Your task to perform on an android device: turn off sleep mode Image 0: 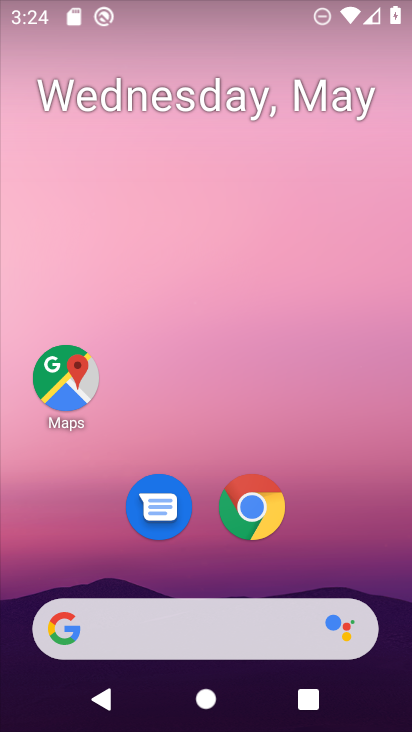
Step 0: drag from (187, 521) to (314, 61)
Your task to perform on an android device: turn off sleep mode Image 1: 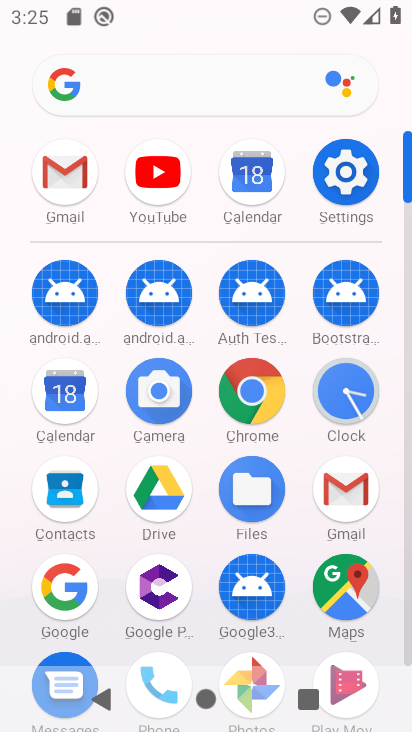
Step 1: click (348, 172)
Your task to perform on an android device: turn off sleep mode Image 2: 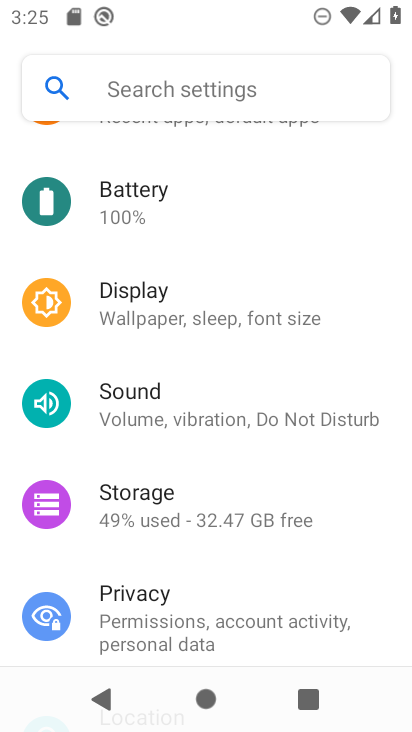
Step 2: drag from (171, 561) to (232, 216)
Your task to perform on an android device: turn off sleep mode Image 3: 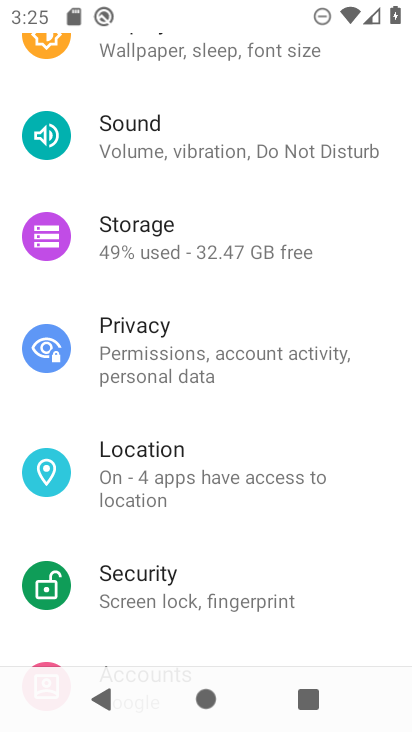
Step 3: drag from (191, 127) to (137, 630)
Your task to perform on an android device: turn off sleep mode Image 4: 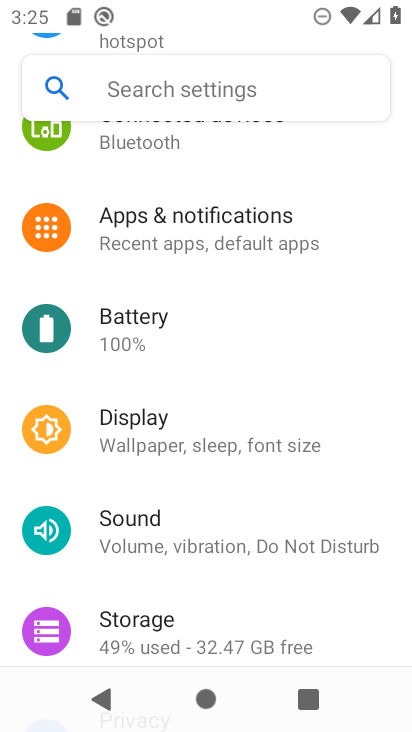
Step 4: click (151, 82)
Your task to perform on an android device: turn off sleep mode Image 5: 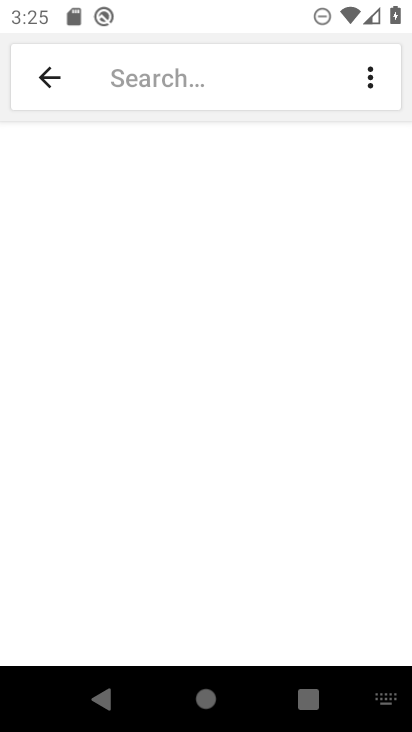
Step 5: type "sleep mode"
Your task to perform on an android device: turn off sleep mode Image 6: 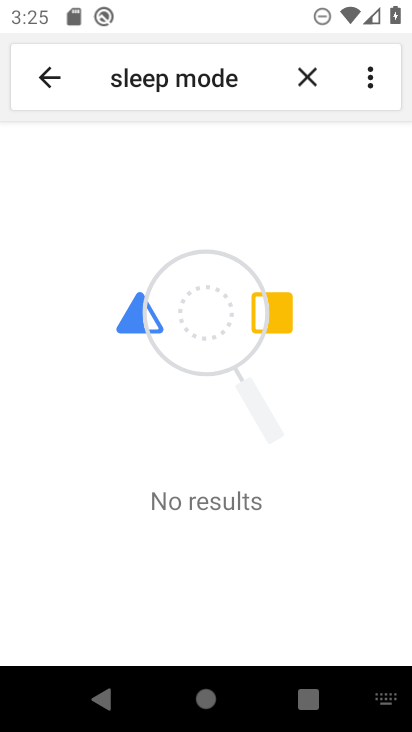
Step 6: task complete